Your task to perform on an android device: Empty the shopping cart on amazon. Search for razer blade on amazon, select the first entry, and add it to the cart. Image 0: 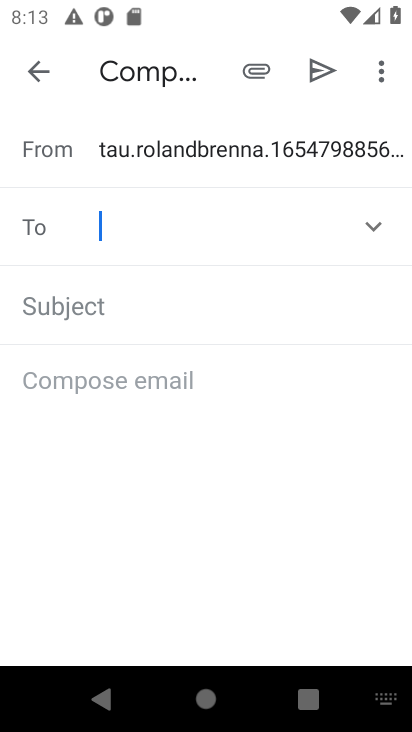
Step 0: press home button
Your task to perform on an android device: Empty the shopping cart on amazon. Search for razer blade on amazon, select the first entry, and add it to the cart. Image 1: 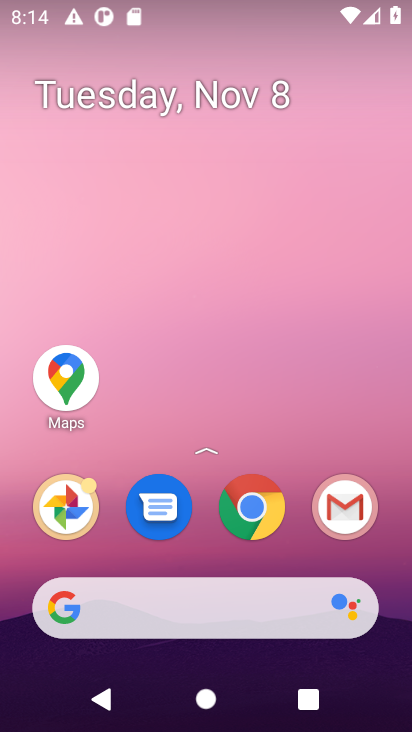
Step 1: click (214, 613)
Your task to perform on an android device: Empty the shopping cart on amazon. Search for razer blade on amazon, select the first entry, and add it to the cart. Image 2: 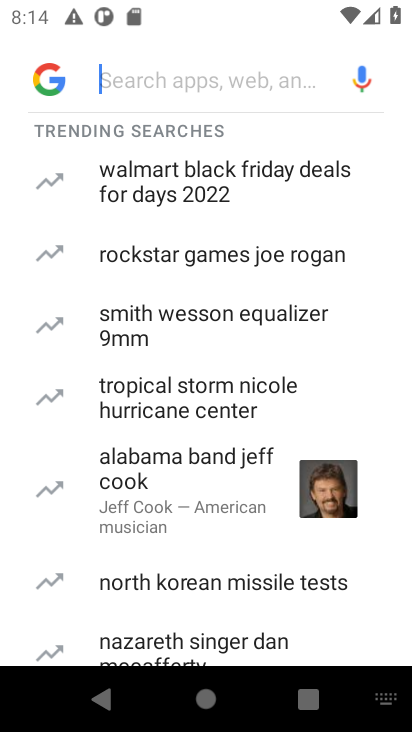
Step 2: type "amazon"
Your task to perform on an android device: Empty the shopping cart on amazon. Search for razer blade on amazon, select the first entry, and add it to the cart. Image 3: 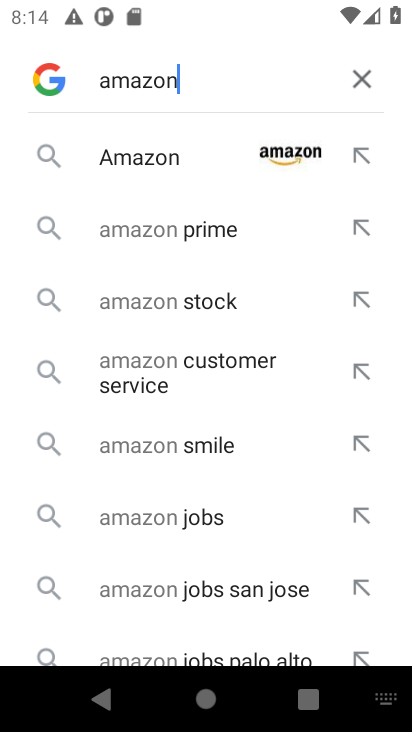
Step 3: click (157, 157)
Your task to perform on an android device: Empty the shopping cart on amazon. Search for razer blade on amazon, select the first entry, and add it to the cart. Image 4: 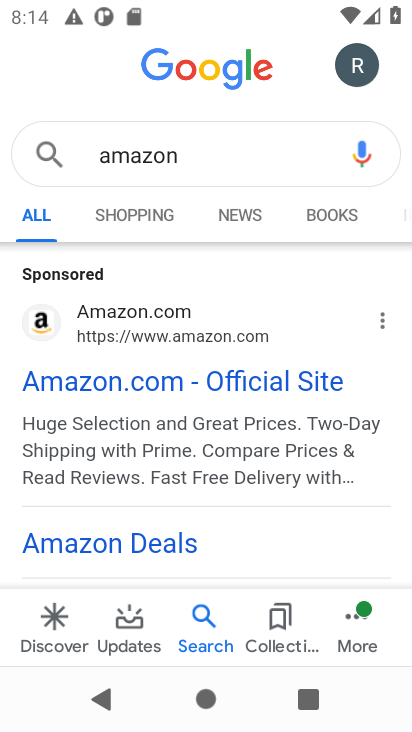
Step 4: click (109, 379)
Your task to perform on an android device: Empty the shopping cart on amazon. Search for razer blade on amazon, select the first entry, and add it to the cart. Image 5: 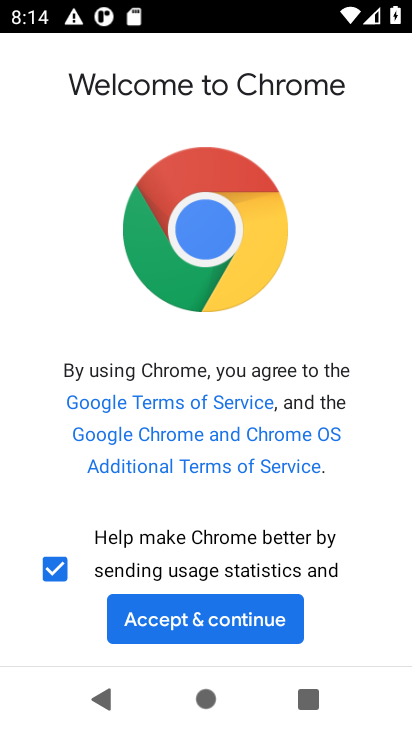
Step 5: click (201, 619)
Your task to perform on an android device: Empty the shopping cart on amazon. Search for razer blade on amazon, select the first entry, and add it to the cart. Image 6: 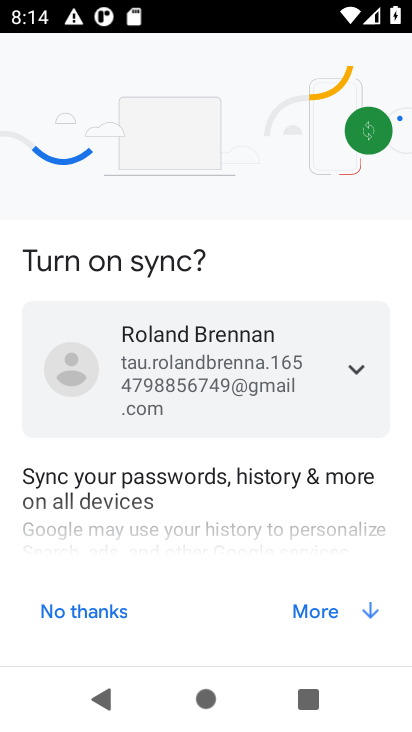
Step 6: click (85, 617)
Your task to perform on an android device: Empty the shopping cart on amazon. Search for razer blade on amazon, select the first entry, and add it to the cart. Image 7: 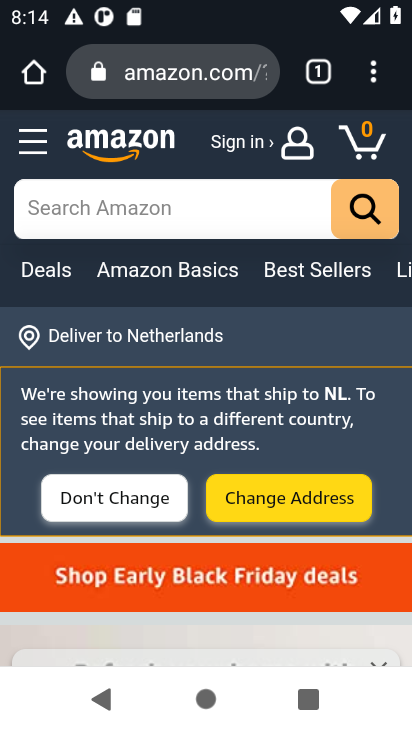
Step 7: click (228, 200)
Your task to perform on an android device: Empty the shopping cart on amazon. Search for razer blade on amazon, select the first entry, and add it to the cart. Image 8: 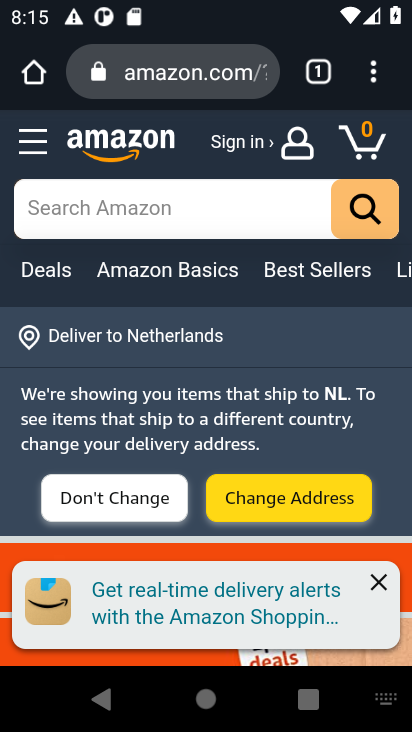
Step 8: type "razer blade"
Your task to perform on an android device: Empty the shopping cart on amazon. Search for razer blade on amazon, select the first entry, and add it to the cart. Image 9: 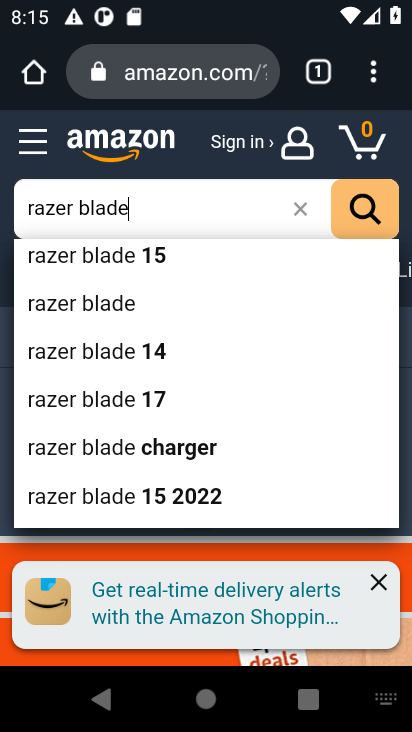
Step 9: click (108, 301)
Your task to perform on an android device: Empty the shopping cart on amazon. Search for razer blade on amazon, select the first entry, and add it to the cart. Image 10: 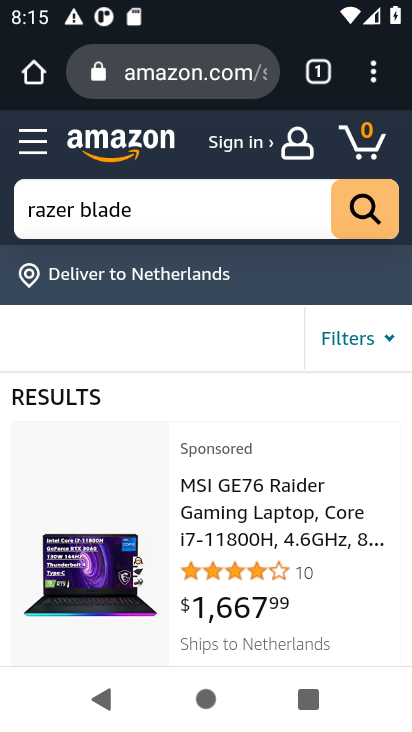
Step 10: drag from (386, 582) to (374, 340)
Your task to perform on an android device: Empty the shopping cart on amazon. Search for razer blade on amazon, select the first entry, and add it to the cart. Image 11: 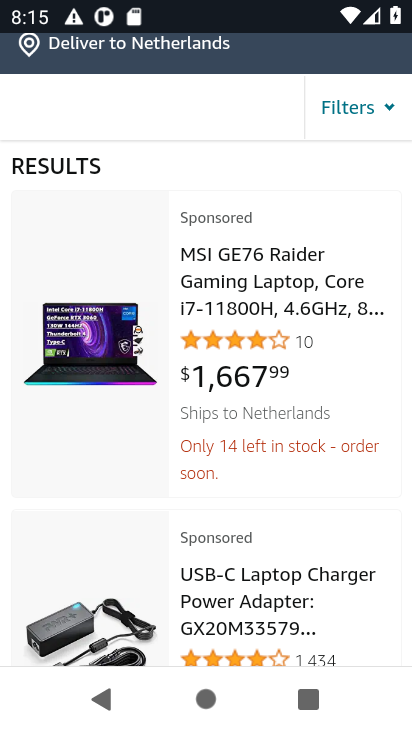
Step 11: click (236, 313)
Your task to perform on an android device: Empty the shopping cart on amazon. Search for razer blade on amazon, select the first entry, and add it to the cart. Image 12: 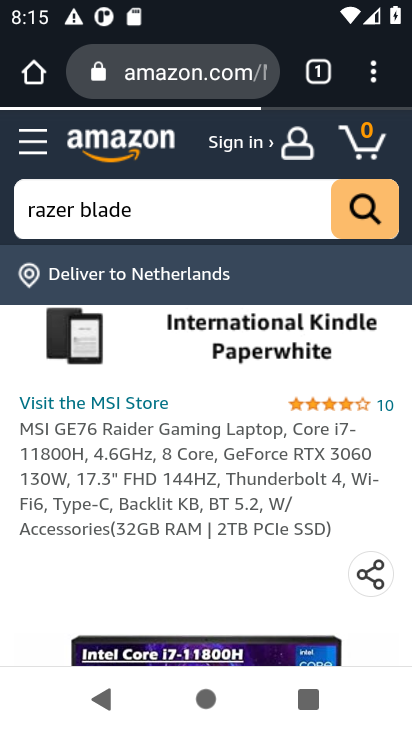
Step 12: drag from (234, 564) to (194, 347)
Your task to perform on an android device: Empty the shopping cart on amazon. Search for razer blade on amazon, select the first entry, and add it to the cart. Image 13: 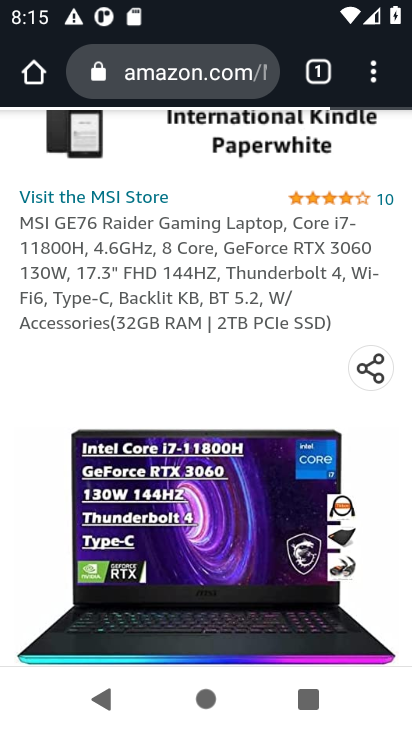
Step 13: drag from (264, 373) to (235, 207)
Your task to perform on an android device: Empty the shopping cart on amazon. Search for razer blade on amazon, select the first entry, and add it to the cart. Image 14: 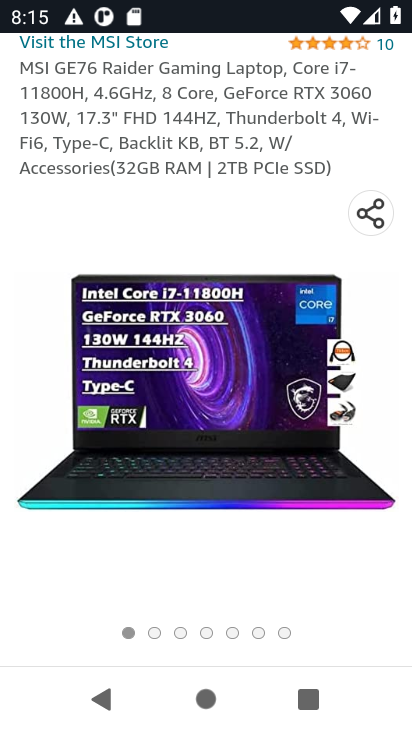
Step 14: drag from (251, 561) to (239, 343)
Your task to perform on an android device: Empty the shopping cart on amazon. Search for razer blade on amazon, select the first entry, and add it to the cart. Image 15: 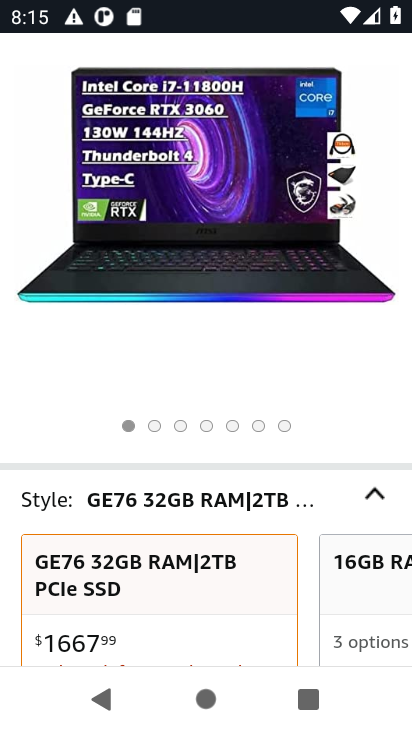
Step 15: drag from (317, 380) to (254, 66)
Your task to perform on an android device: Empty the shopping cart on amazon. Search for razer blade on amazon, select the first entry, and add it to the cart. Image 16: 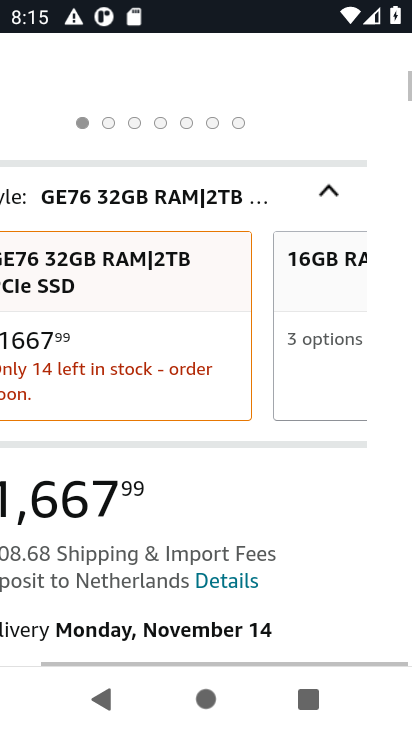
Step 16: drag from (274, 563) to (248, 266)
Your task to perform on an android device: Empty the shopping cart on amazon. Search for razer blade on amazon, select the first entry, and add it to the cart. Image 17: 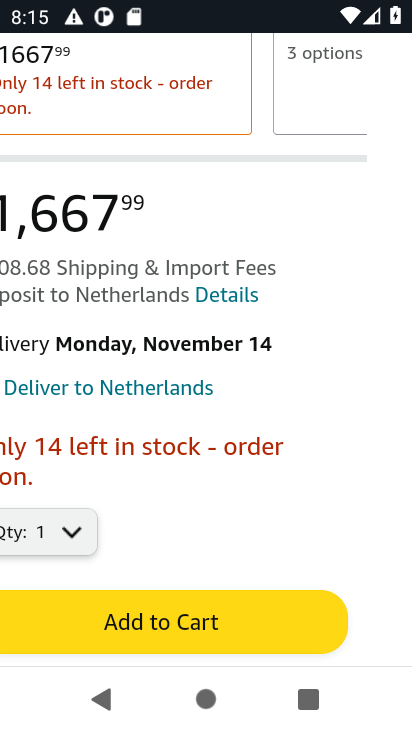
Step 17: click (173, 627)
Your task to perform on an android device: Empty the shopping cart on amazon. Search for razer blade on amazon, select the first entry, and add it to the cart. Image 18: 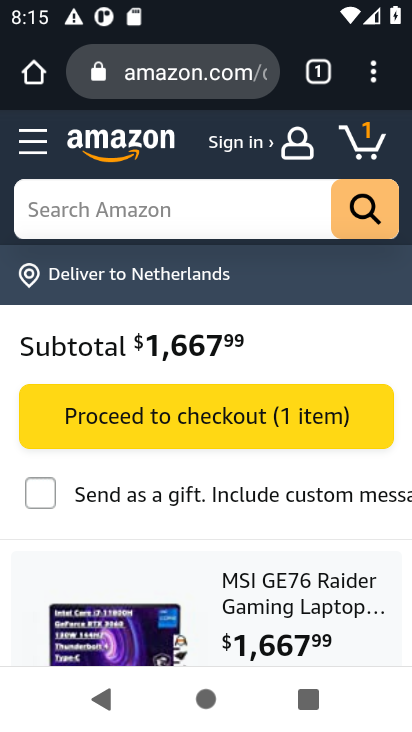
Step 18: task complete